Your task to perform on an android device: add a label to a message in the gmail app Image 0: 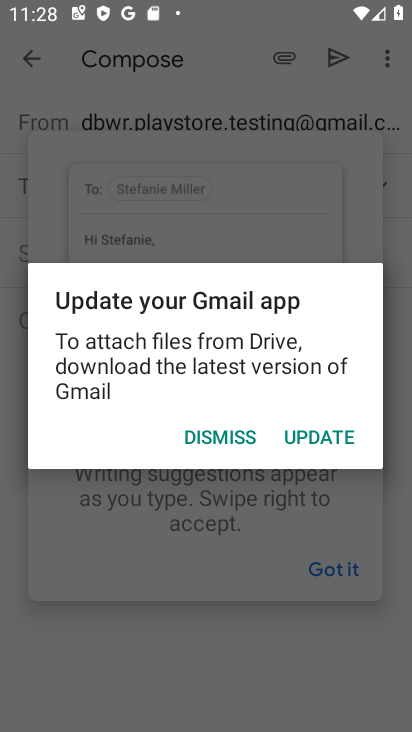
Step 0: press home button
Your task to perform on an android device: add a label to a message in the gmail app Image 1: 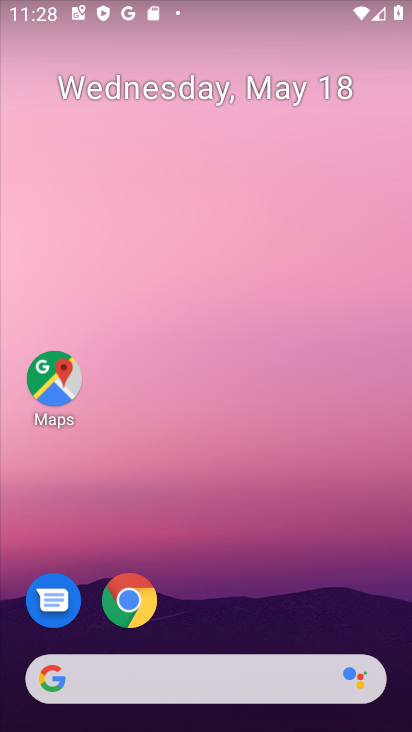
Step 1: drag from (201, 628) to (183, 24)
Your task to perform on an android device: add a label to a message in the gmail app Image 2: 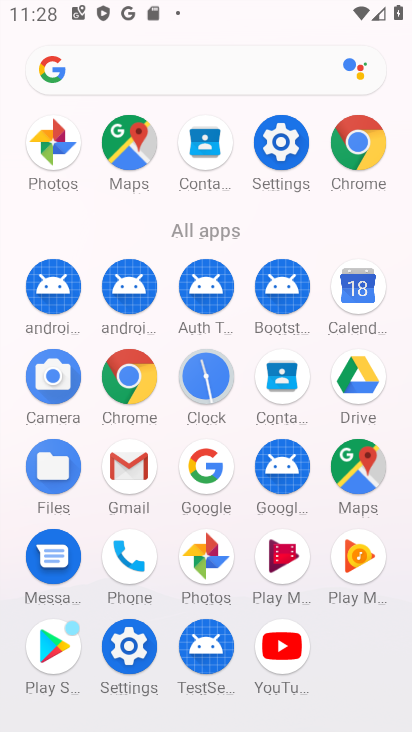
Step 2: click (128, 479)
Your task to perform on an android device: add a label to a message in the gmail app Image 3: 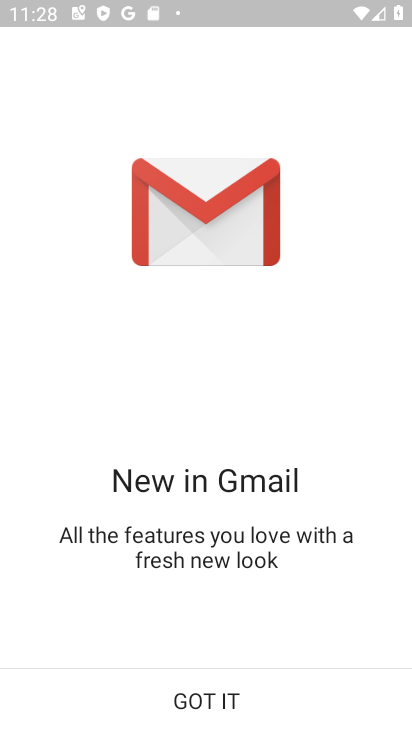
Step 3: click (205, 707)
Your task to perform on an android device: add a label to a message in the gmail app Image 4: 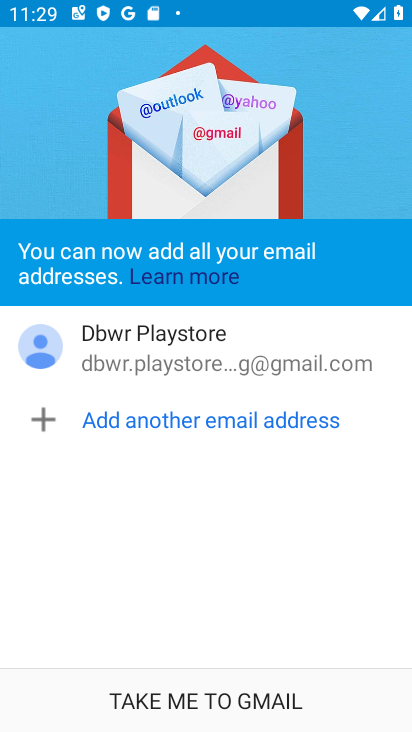
Step 4: click (202, 702)
Your task to perform on an android device: add a label to a message in the gmail app Image 5: 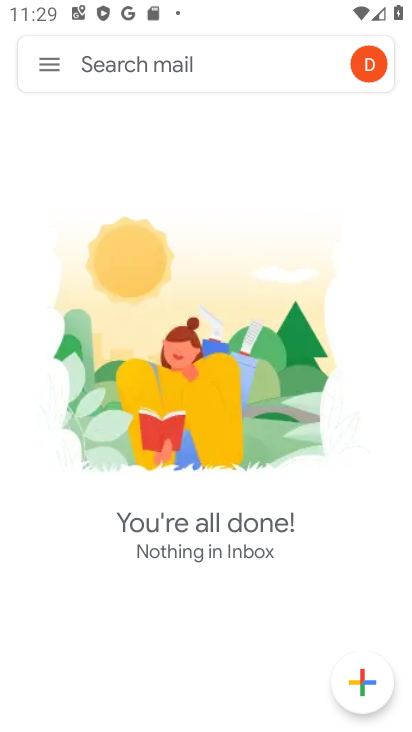
Step 5: click (41, 59)
Your task to perform on an android device: add a label to a message in the gmail app Image 6: 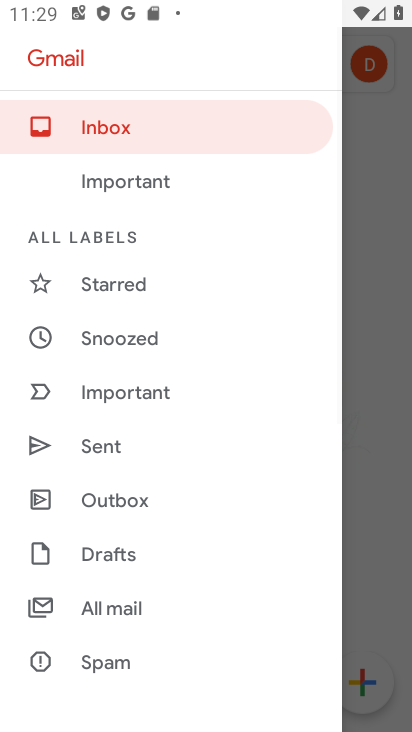
Step 6: click (113, 611)
Your task to perform on an android device: add a label to a message in the gmail app Image 7: 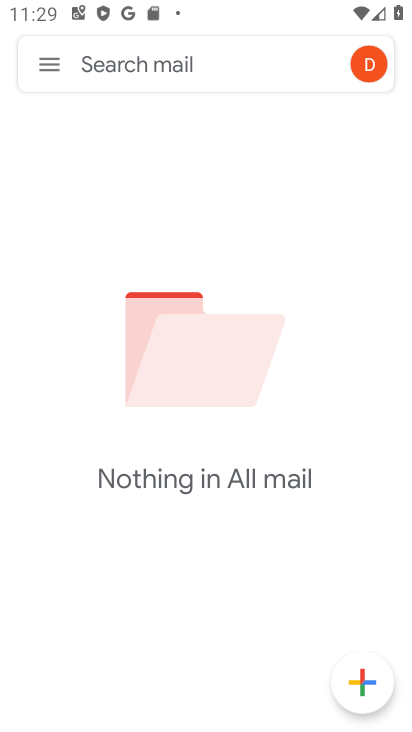
Step 7: task complete